Your task to perform on an android device: delete browsing data in the chrome app Image 0: 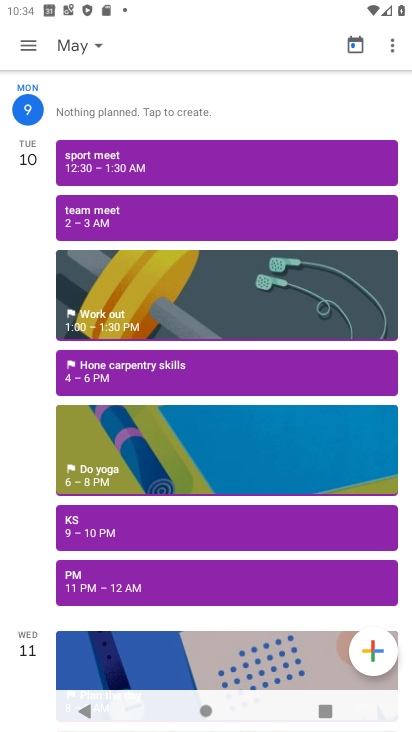
Step 0: press home button
Your task to perform on an android device: delete browsing data in the chrome app Image 1: 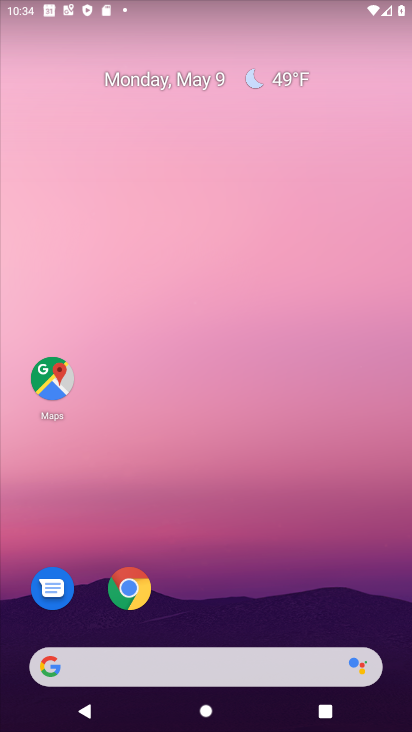
Step 1: drag from (228, 725) to (226, 282)
Your task to perform on an android device: delete browsing data in the chrome app Image 2: 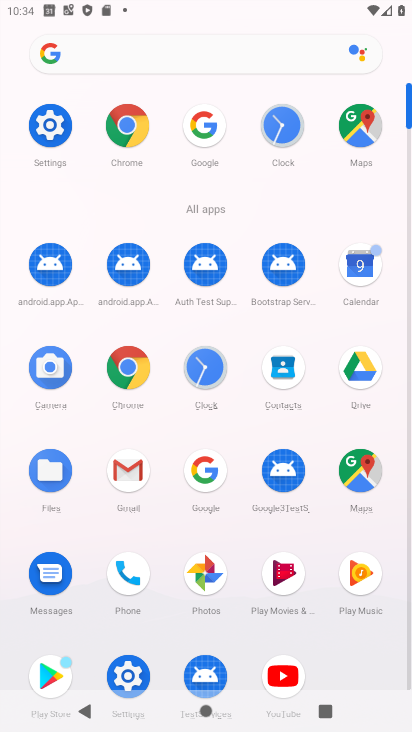
Step 2: click (124, 368)
Your task to perform on an android device: delete browsing data in the chrome app Image 3: 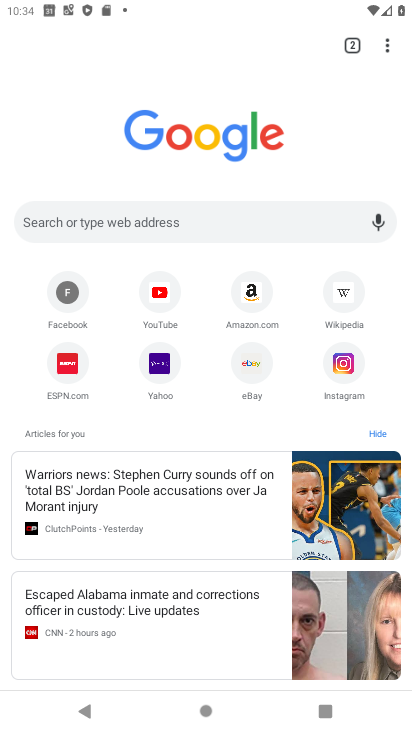
Step 3: click (387, 52)
Your task to perform on an android device: delete browsing data in the chrome app Image 4: 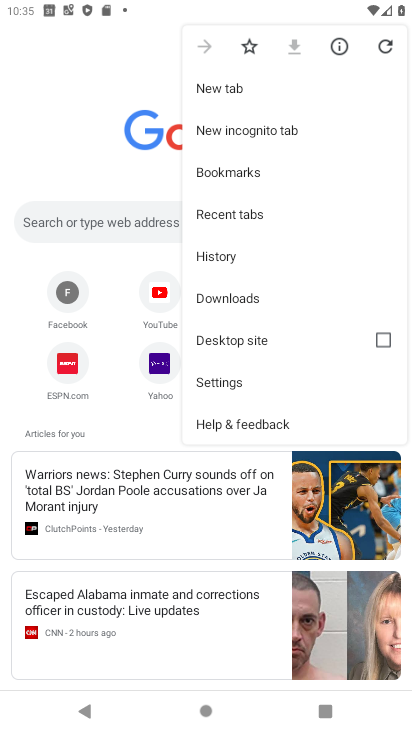
Step 4: click (216, 252)
Your task to perform on an android device: delete browsing data in the chrome app Image 5: 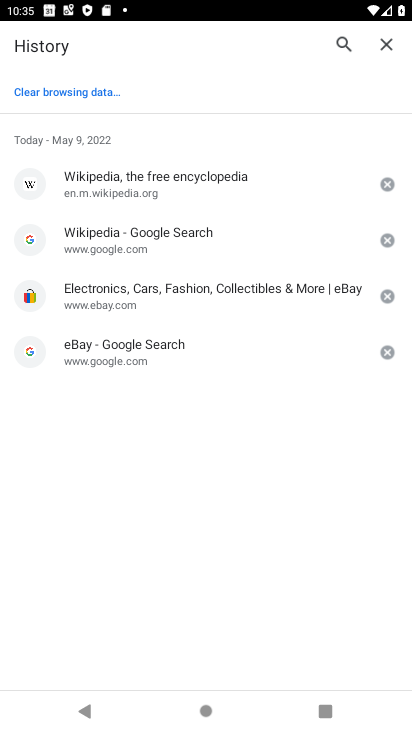
Step 5: click (72, 89)
Your task to perform on an android device: delete browsing data in the chrome app Image 6: 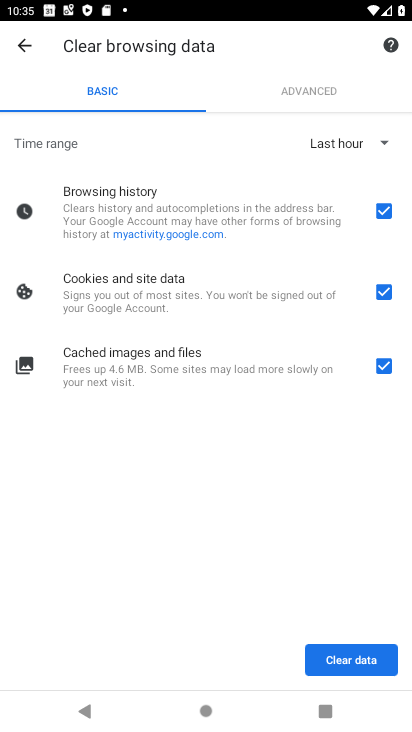
Step 6: click (386, 288)
Your task to perform on an android device: delete browsing data in the chrome app Image 7: 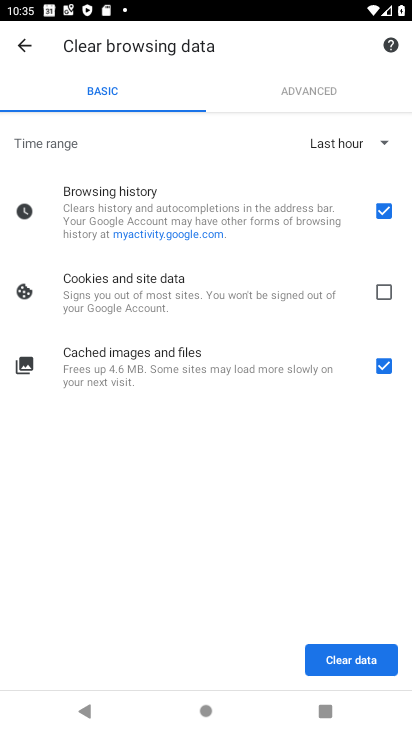
Step 7: click (384, 363)
Your task to perform on an android device: delete browsing data in the chrome app Image 8: 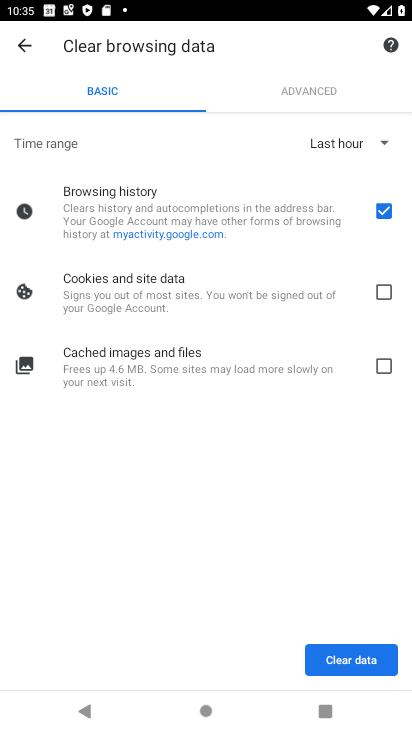
Step 8: click (356, 657)
Your task to perform on an android device: delete browsing data in the chrome app Image 9: 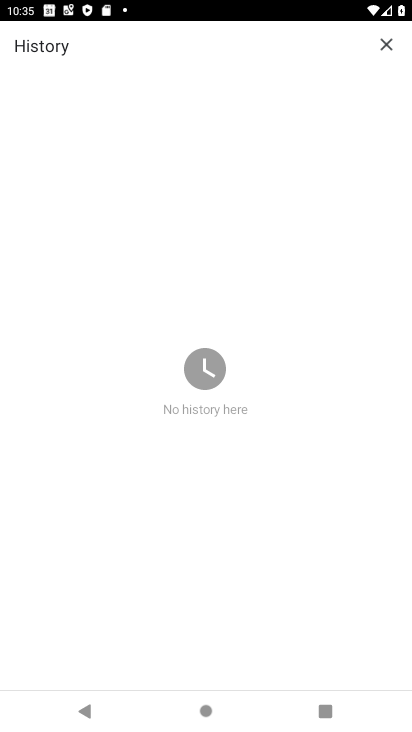
Step 9: task complete